Your task to perform on an android device: What is the recent news? Image 0: 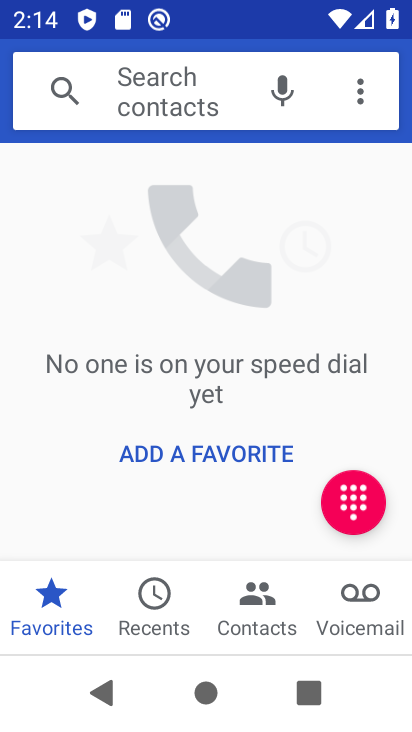
Step 0: press home button
Your task to perform on an android device: What is the recent news? Image 1: 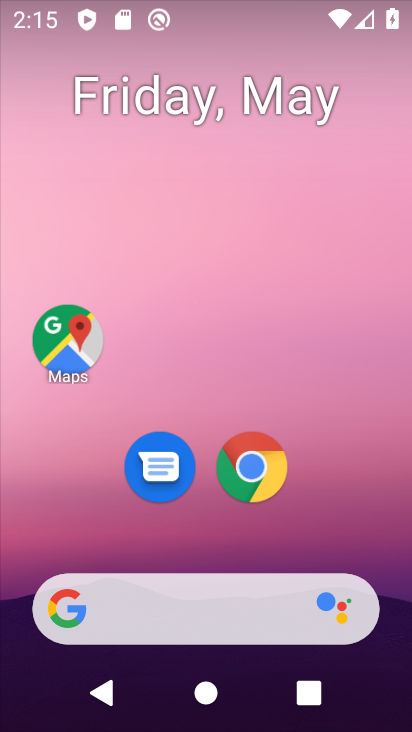
Step 1: click (198, 605)
Your task to perform on an android device: What is the recent news? Image 2: 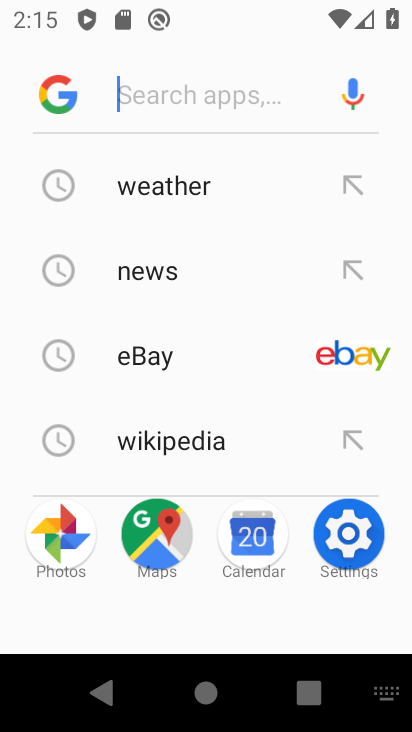
Step 2: type "what is the recent news"
Your task to perform on an android device: What is the recent news? Image 3: 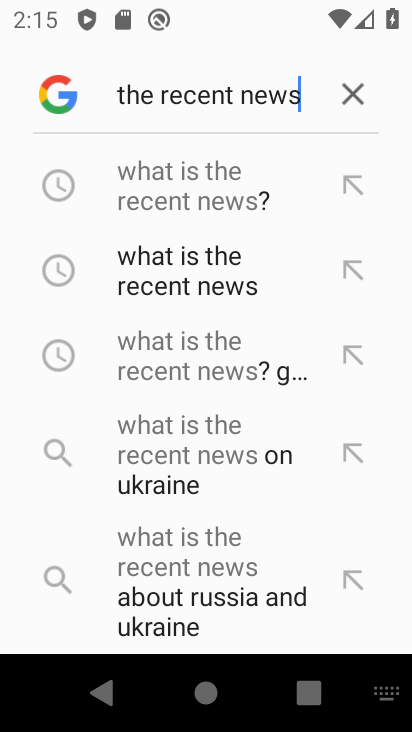
Step 3: click (204, 195)
Your task to perform on an android device: What is the recent news? Image 4: 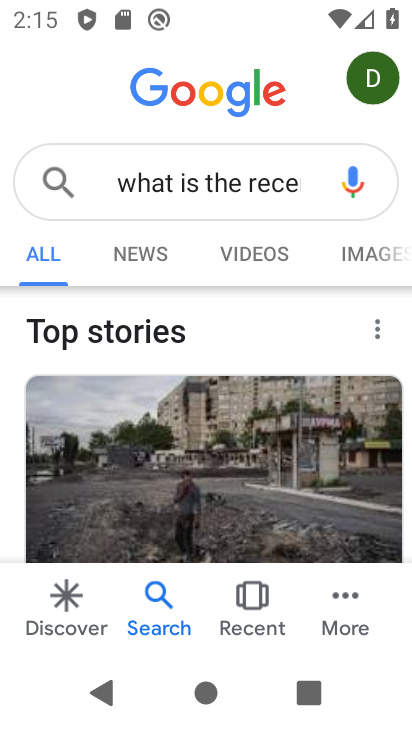
Step 4: click (125, 255)
Your task to perform on an android device: What is the recent news? Image 5: 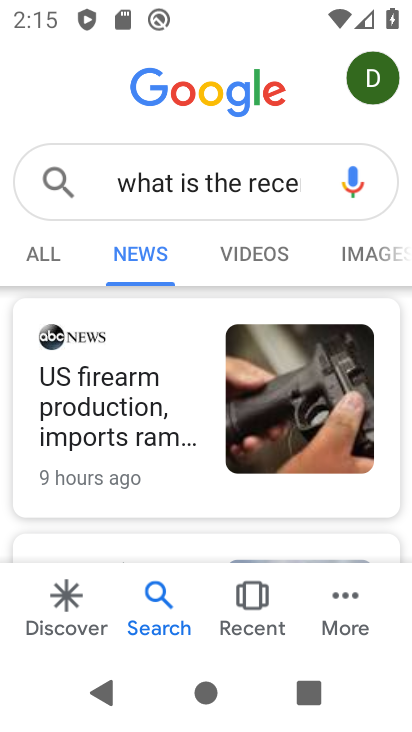
Step 5: task complete